Your task to perform on an android device: Go to location settings Image 0: 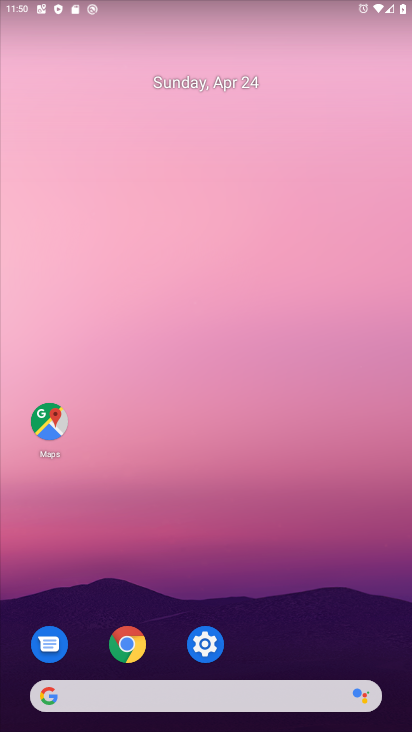
Step 0: press home button
Your task to perform on an android device: Go to location settings Image 1: 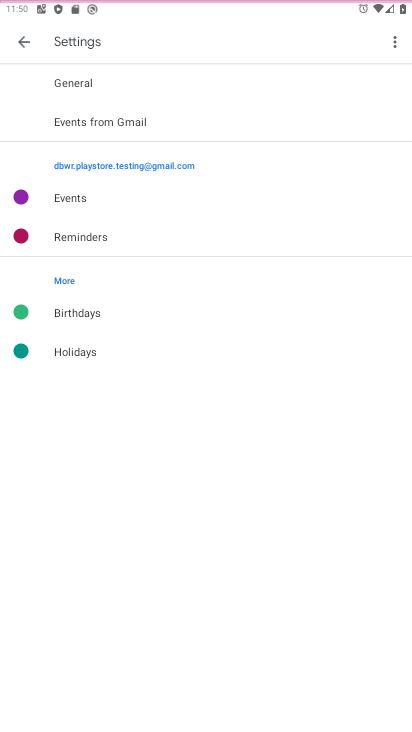
Step 1: drag from (256, 675) to (403, 381)
Your task to perform on an android device: Go to location settings Image 2: 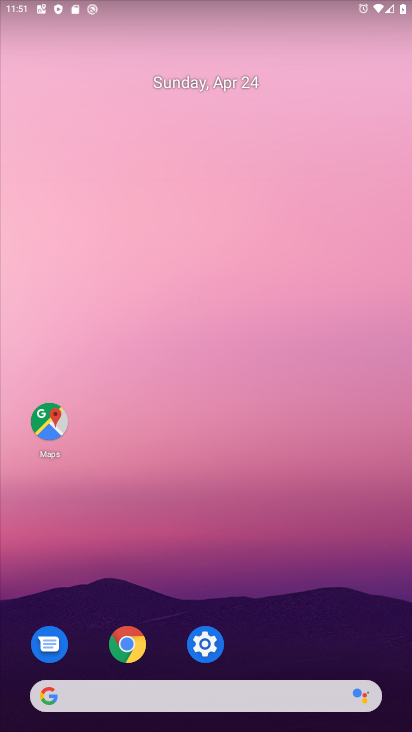
Step 2: click (40, 119)
Your task to perform on an android device: Go to location settings Image 3: 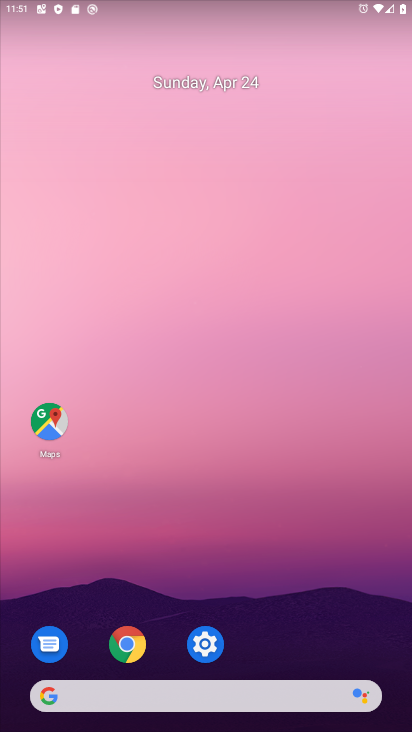
Step 3: click (250, 90)
Your task to perform on an android device: Go to location settings Image 4: 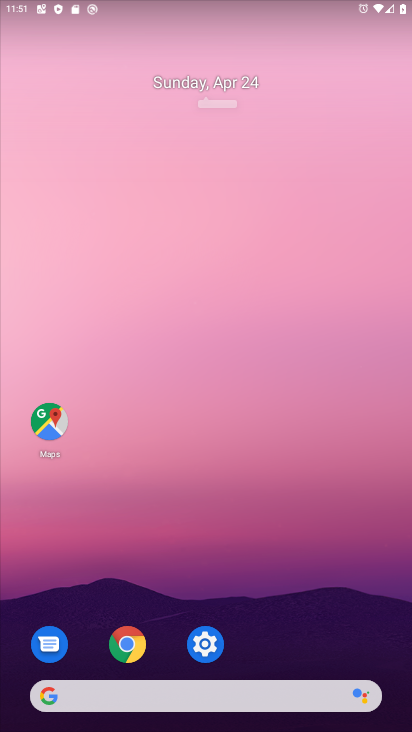
Step 4: click (122, 151)
Your task to perform on an android device: Go to location settings Image 5: 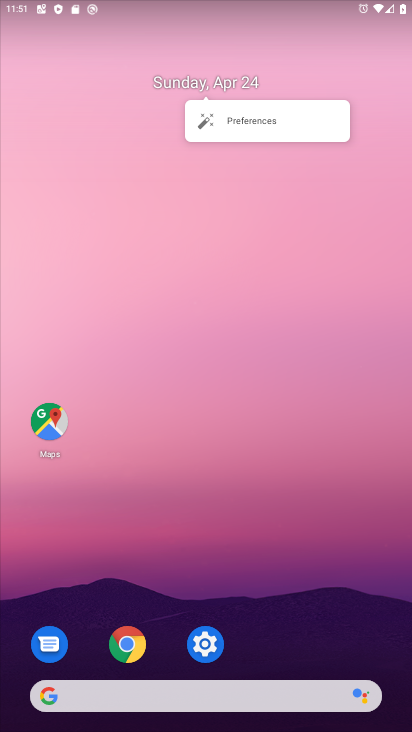
Step 5: click (173, 103)
Your task to perform on an android device: Go to location settings Image 6: 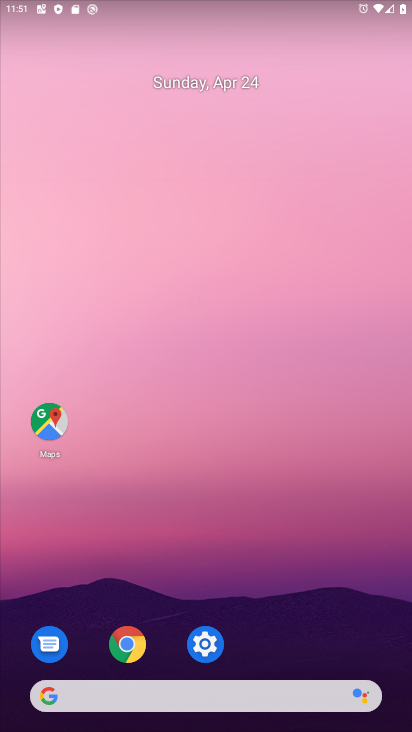
Step 6: drag from (190, 57) to (192, 93)
Your task to perform on an android device: Go to location settings Image 7: 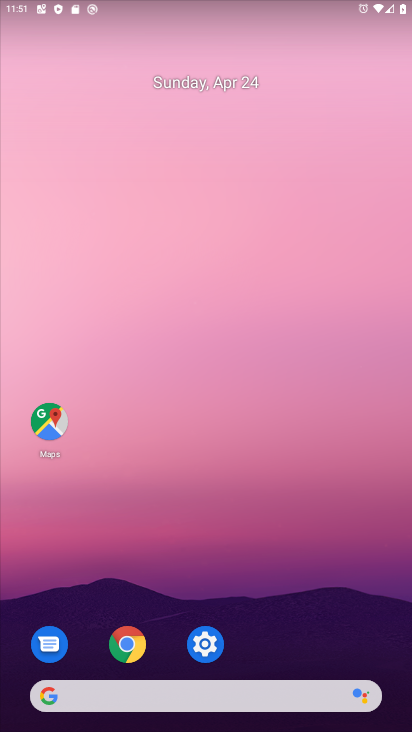
Step 7: drag from (204, 212) to (137, 104)
Your task to perform on an android device: Go to location settings Image 8: 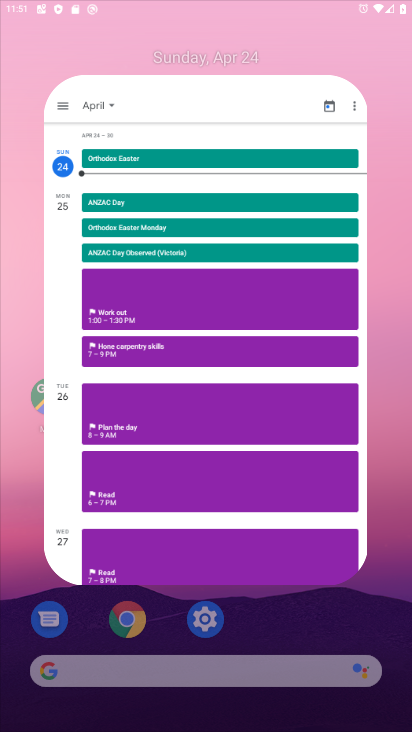
Step 8: press home button
Your task to perform on an android device: Go to location settings Image 9: 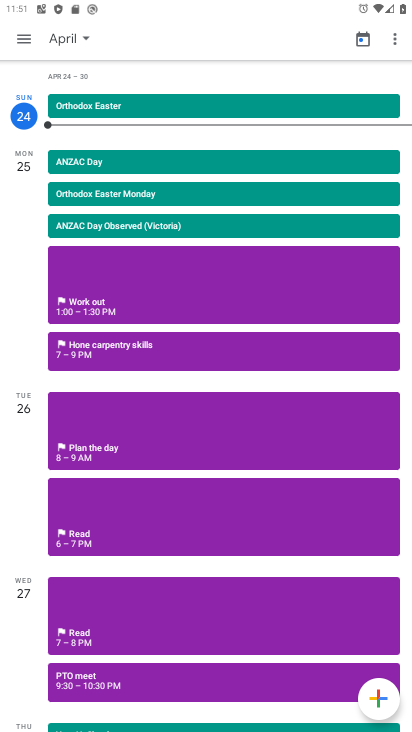
Step 9: click (219, 31)
Your task to perform on an android device: Go to location settings Image 10: 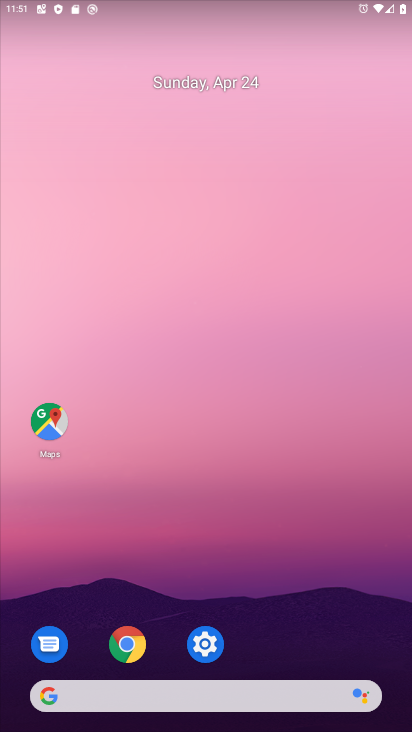
Step 10: drag from (333, 654) to (151, 111)
Your task to perform on an android device: Go to location settings Image 11: 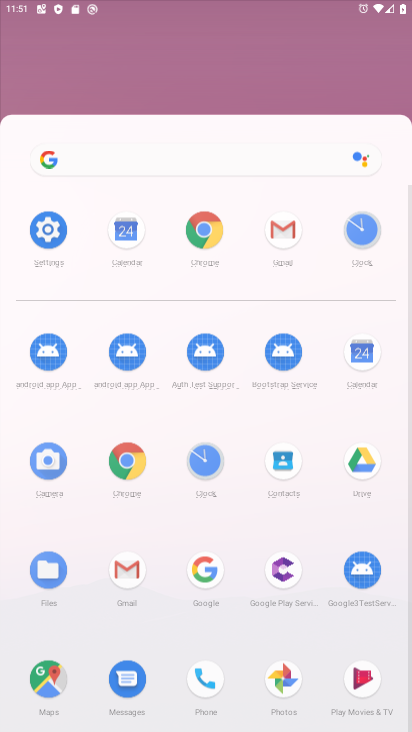
Step 11: drag from (261, 419) to (246, 12)
Your task to perform on an android device: Go to location settings Image 12: 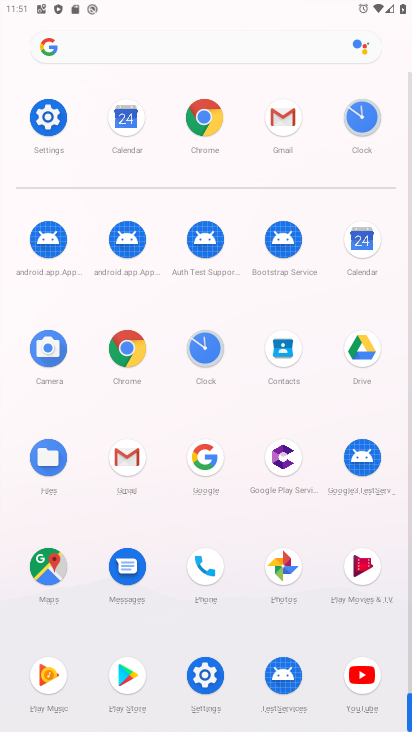
Step 12: click (48, 120)
Your task to perform on an android device: Go to location settings Image 13: 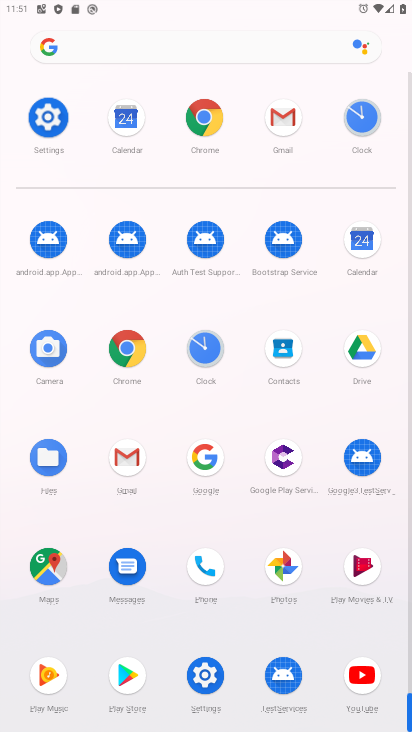
Step 13: click (48, 119)
Your task to perform on an android device: Go to location settings Image 14: 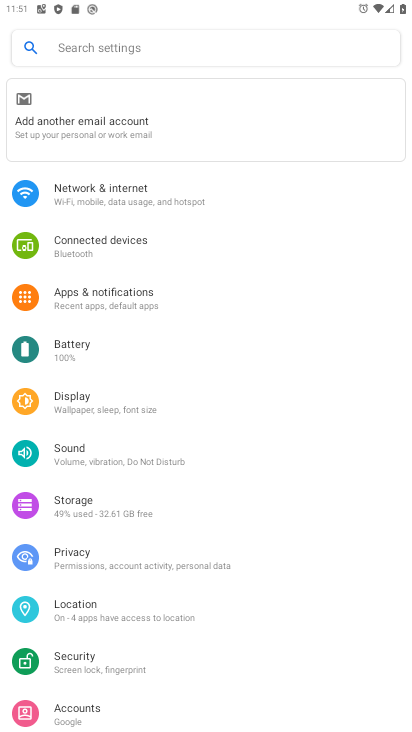
Step 14: click (86, 613)
Your task to perform on an android device: Go to location settings Image 15: 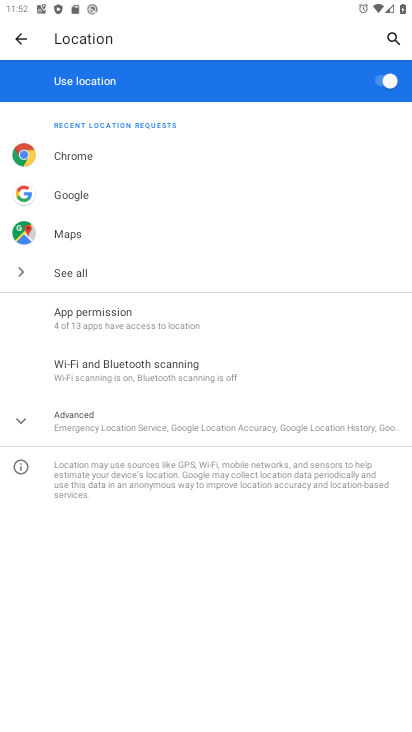
Step 15: click (386, 77)
Your task to perform on an android device: Go to location settings Image 16: 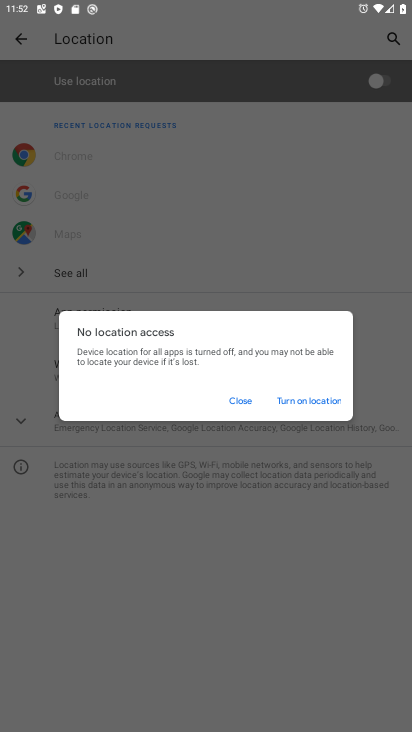
Step 16: task complete